Your task to perform on an android device: Open Google Maps and go to "Timeline" Image 0: 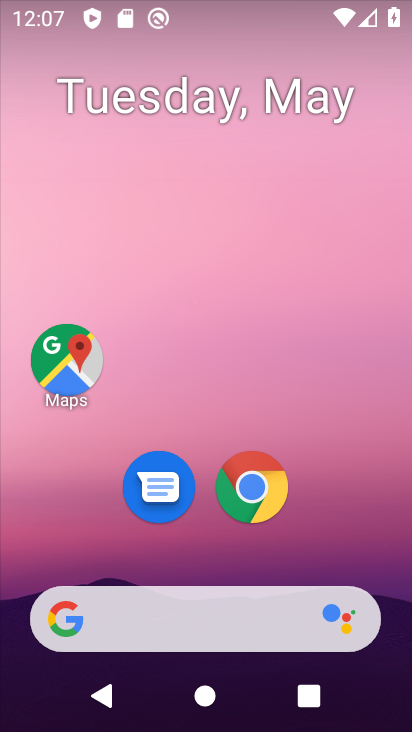
Step 0: drag from (369, 560) to (295, 28)
Your task to perform on an android device: Open Google Maps and go to "Timeline" Image 1: 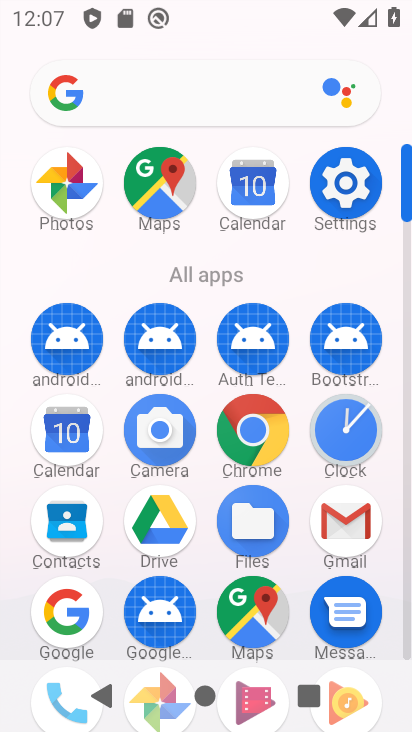
Step 1: drag from (0, 585) to (34, 220)
Your task to perform on an android device: Open Google Maps and go to "Timeline" Image 2: 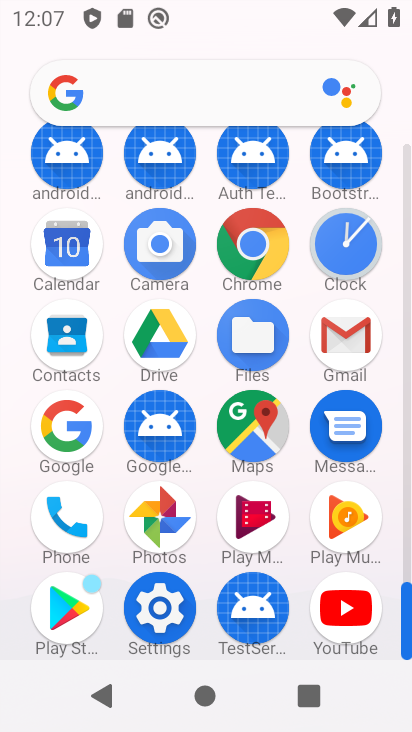
Step 2: click (249, 419)
Your task to perform on an android device: Open Google Maps and go to "Timeline" Image 3: 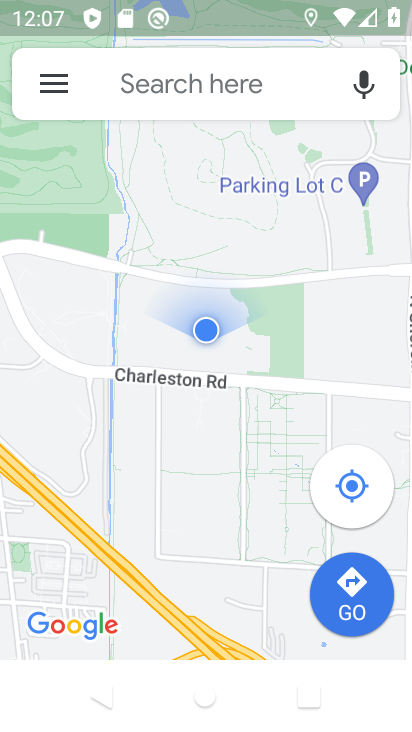
Step 3: click (49, 80)
Your task to perform on an android device: Open Google Maps and go to "Timeline" Image 4: 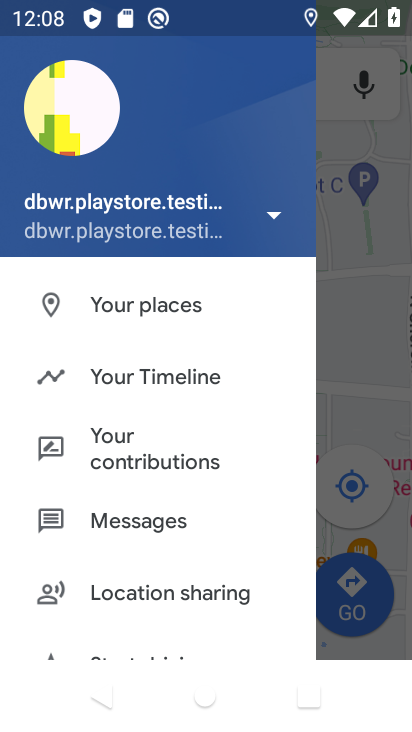
Step 4: click (145, 380)
Your task to perform on an android device: Open Google Maps and go to "Timeline" Image 5: 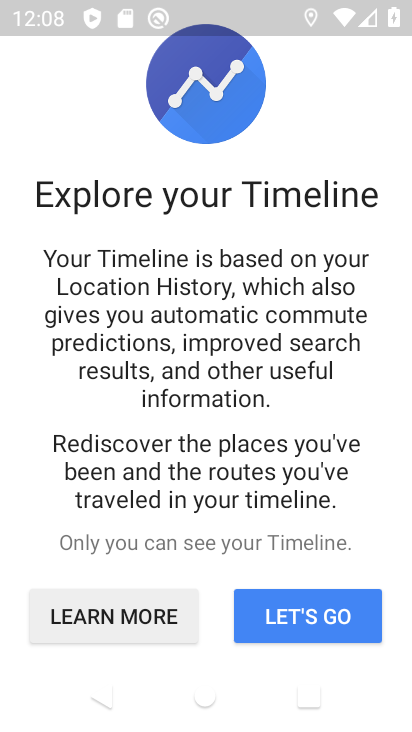
Step 5: click (303, 628)
Your task to perform on an android device: Open Google Maps and go to "Timeline" Image 6: 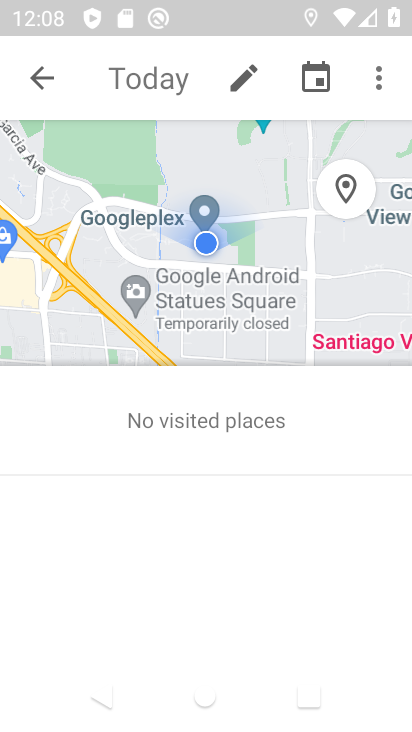
Step 6: task complete